Your task to perform on an android device: Clear the cart on walmart.com. Search for macbook air on walmart.com, select the first entry, and add it to the cart. Image 0: 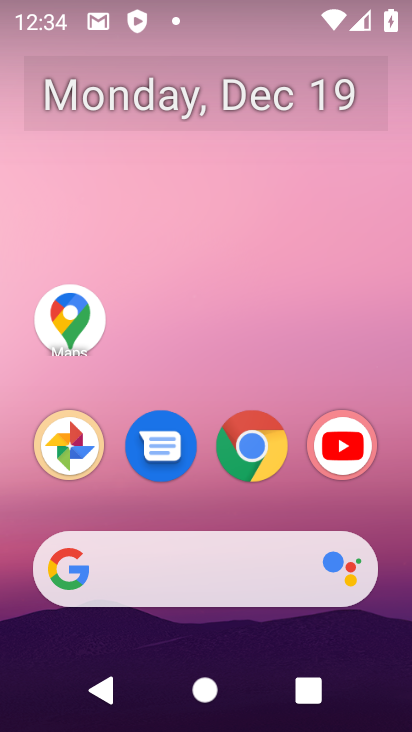
Step 0: click (244, 441)
Your task to perform on an android device: Clear the cart on walmart.com. Search for macbook air on walmart.com, select the first entry, and add it to the cart. Image 1: 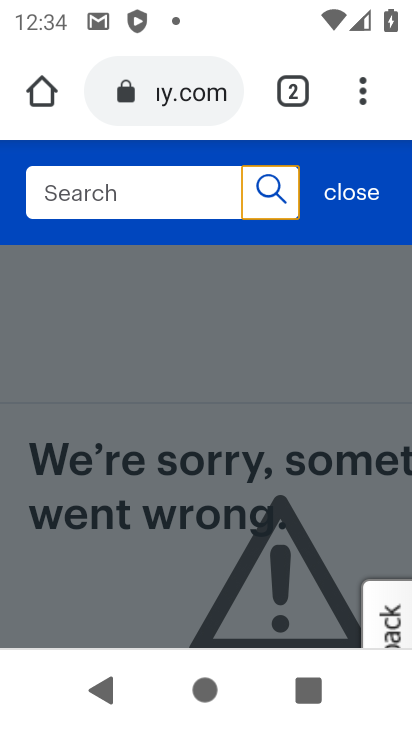
Step 1: click (198, 95)
Your task to perform on an android device: Clear the cart on walmart.com. Search for macbook air on walmart.com, select the first entry, and add it to the cart. Image 2: 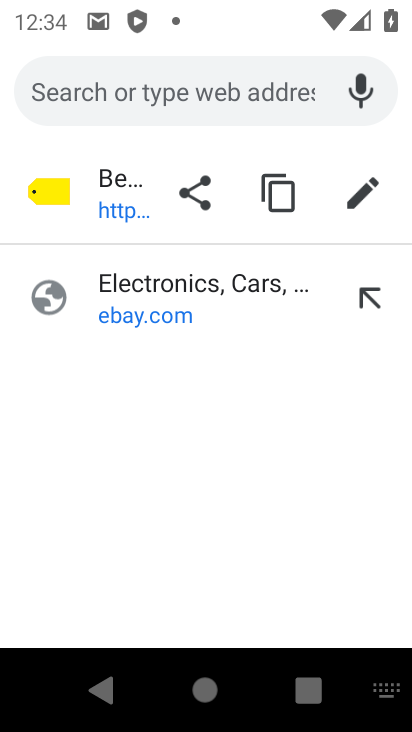
Step 2: type "walmart"
Your task to perform on an android device: Clear the cart on walmart.com. Search for macbook air on walmart.com, select the first entry, and add it to the cart. Image 3: 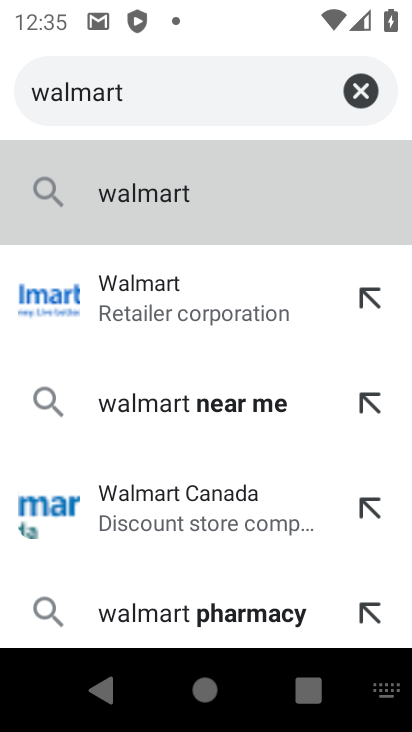
Step 3: click (129, 328)
Your task to perform on an android device: Clear the cart on walmart.com. Search for macbook air on walmart.com, select the first entry, and add it to the cart. Image 4: 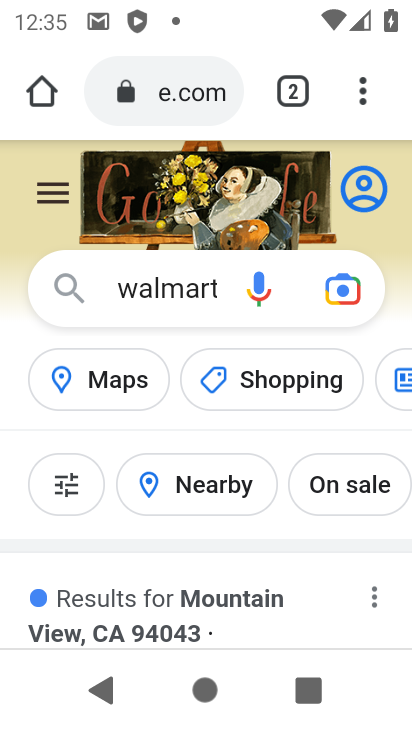
Step 4: click (155, 623)
Your task to perform on an android device: Clear the cart on walmart.com. Search for macbook air on walmart.com, select the first entry, and add it to the cart. Image 5: 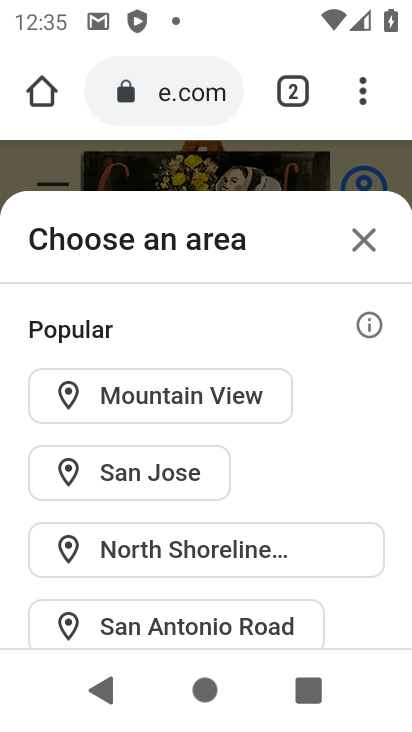
Step 5: click (351, 242)
Your task to perform on an android device: Clear the cart on walmart.com. Search for macbook air on walmart.com, select the first entry, and add it to the cart. Image 6: 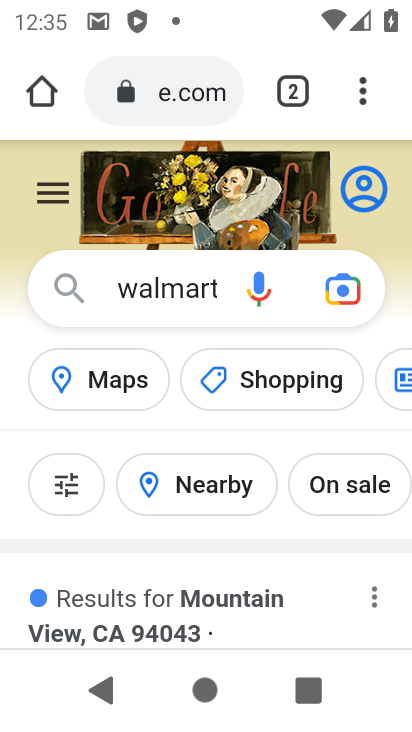
Step 6: drag from (312, 630) to (288, 268)
Your task to perform on an android device: Clear the cart on walmart.com. Search for macbook air on walmart.com, select the first entry, and add it to the cart. Image 7: 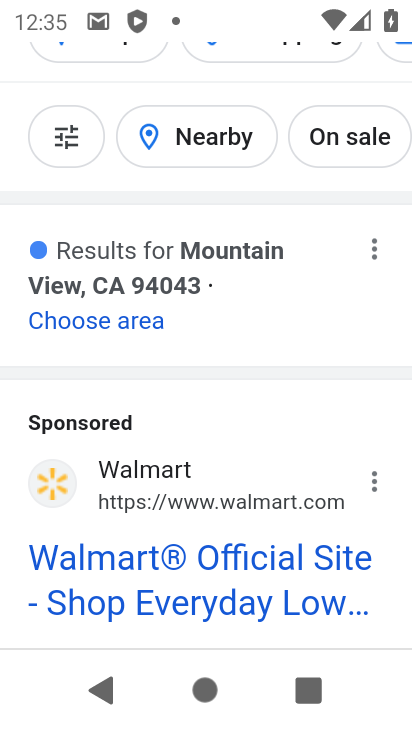
Step 7: click (248, 502)
Your task to perform on an android device: Clear the cart on walmart.com. Search for macbook air on walmart.com, select the first entry, and add it to the cart. Image 8: 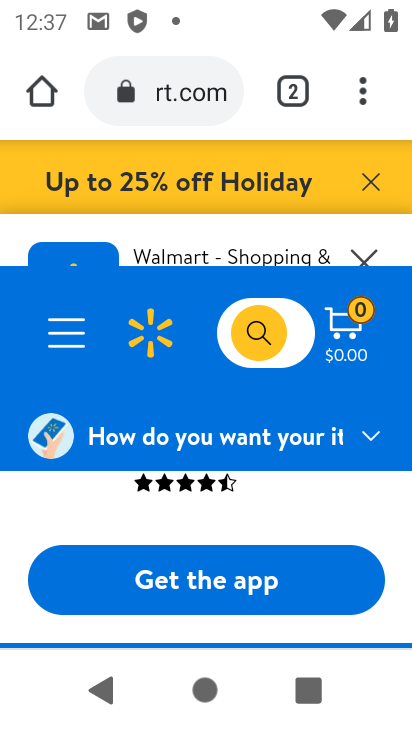
Step 8: task complete